Your task to perform on an android device: toggle translation in the chrome app Image 0: 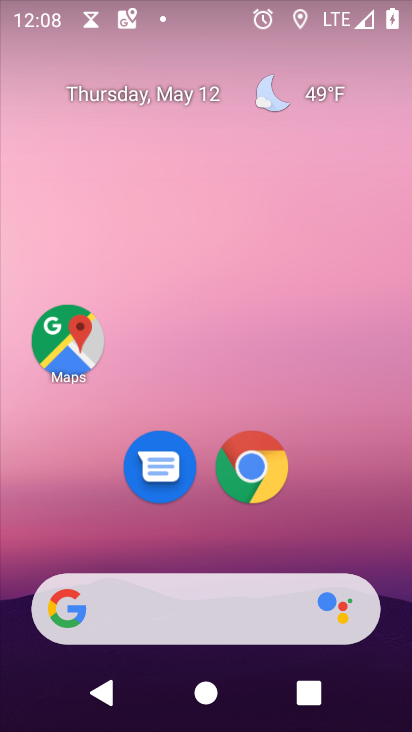
Step 0: click (252, 493)
Your task to perform on an android device: toggle translation in the chrome app Image 1: 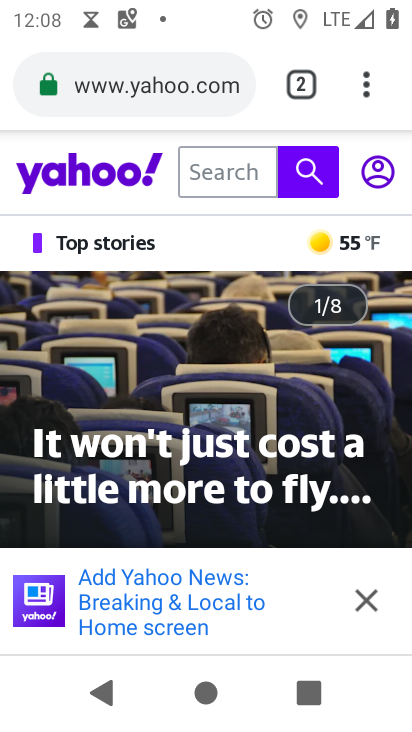
Step 1: drag from (368, 90) to (210, 523)
Your task to perform on an android device: toggle translation in the chrome app Image 2: 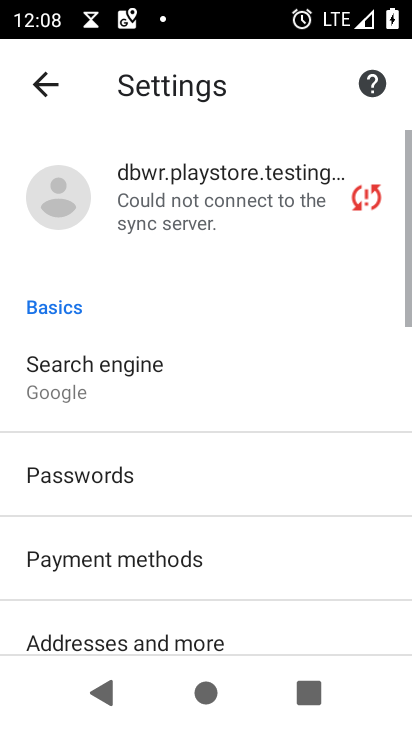
Step 2: drag from (214, 502) to (237, 426)
Your task to perform on an android device: toggle translation in the chrome app Image 3: 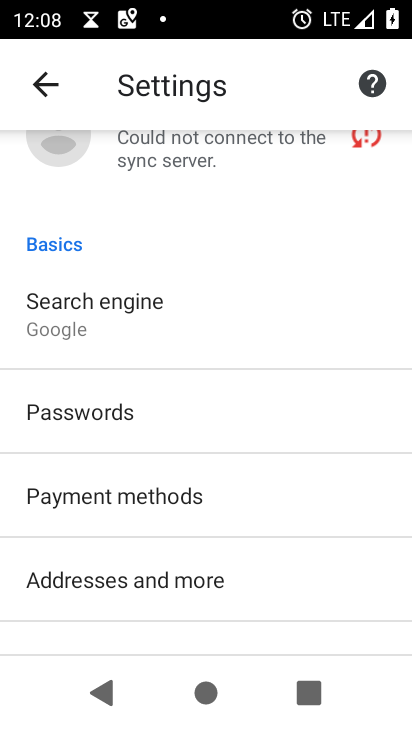
Step 3: drag from (253, 571) to (294, 225)
Your task to perform on an android device: toggle translation in the chrome app Image 4: 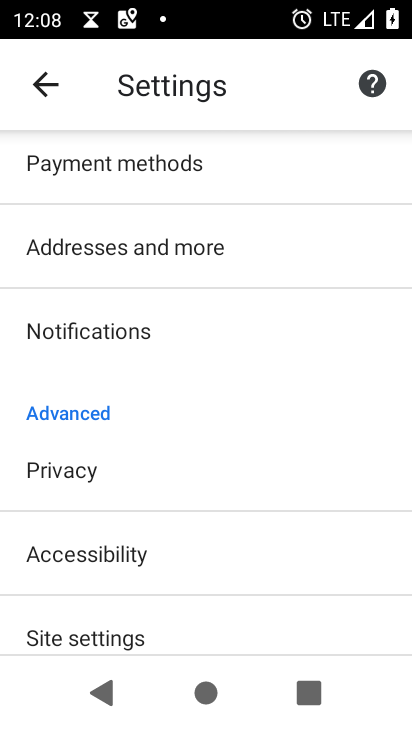
Step 4: drag from (220, 610) to (283, 297)
Your task to perform on an android device: toggle translation in the chrome app Image 5: 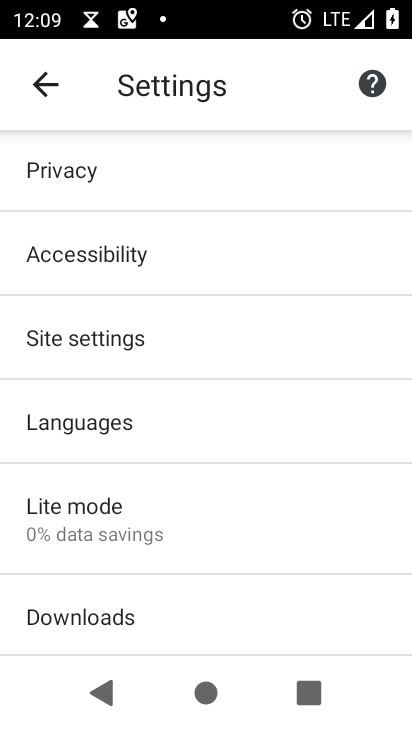
Step 5: click (165, 417)
Your task to perform on an android device: toggle translation in the chrome app Image 6: 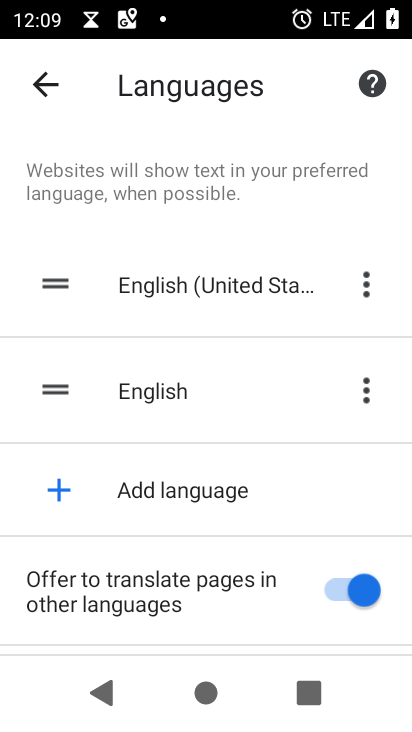
Step 6: click (339, 588)
Your task to perform on an android device: toggle translation in the chrome app Image 7: 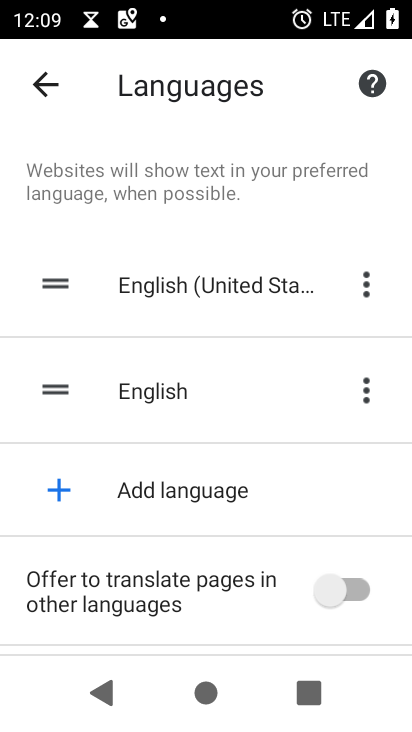
Step 7: task complete